Your task to perform on an android device: Go to location settings Image 0: 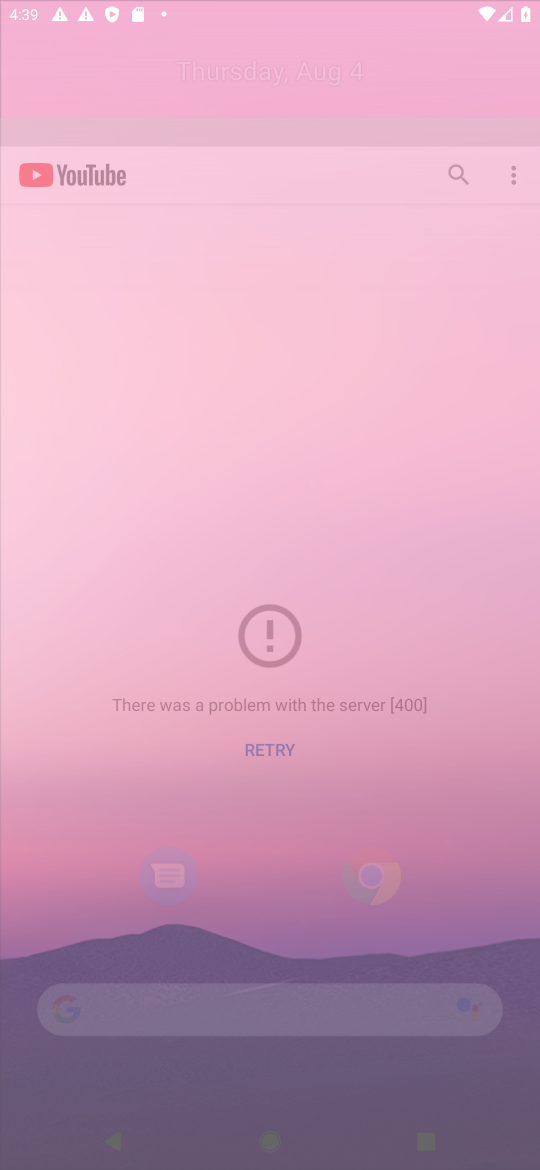
Step 0: press home button
Your task to perform on an android device: Go to location settings Image 1: 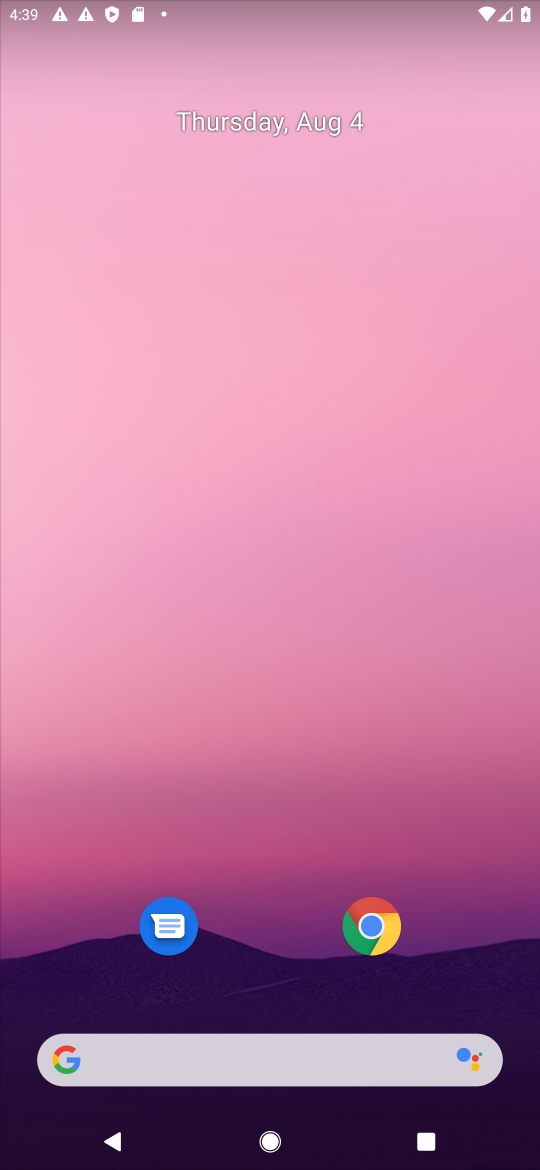
Step 1: drag from (281, 1022) to (413, 253)
Your task to perform on an android device: Go to location settings Image 2: 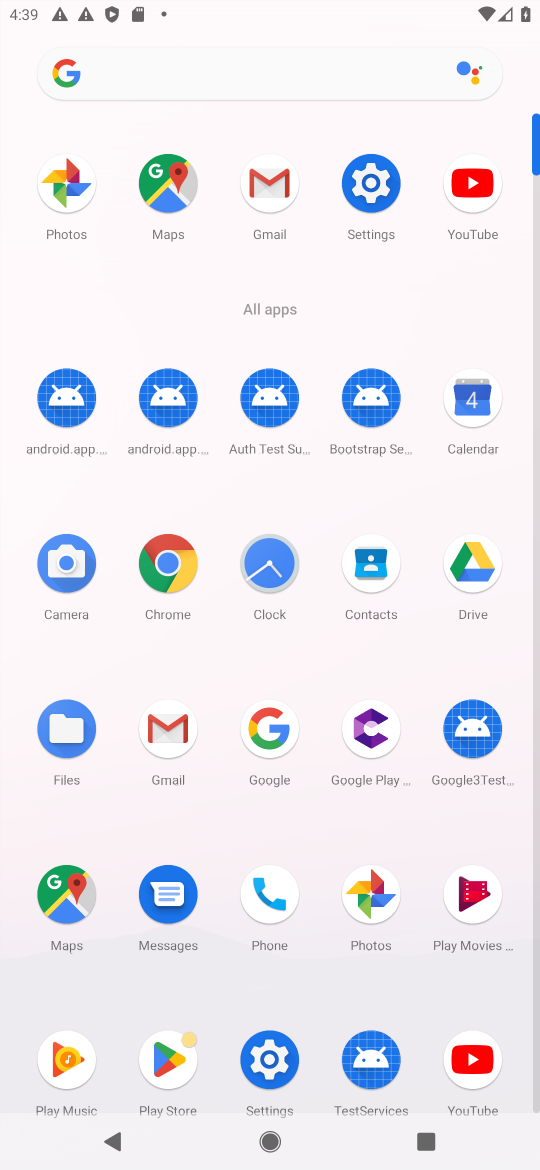
Step 2: click (375, 196)
Your task to perform on an android device: Go to location settings Image 3: 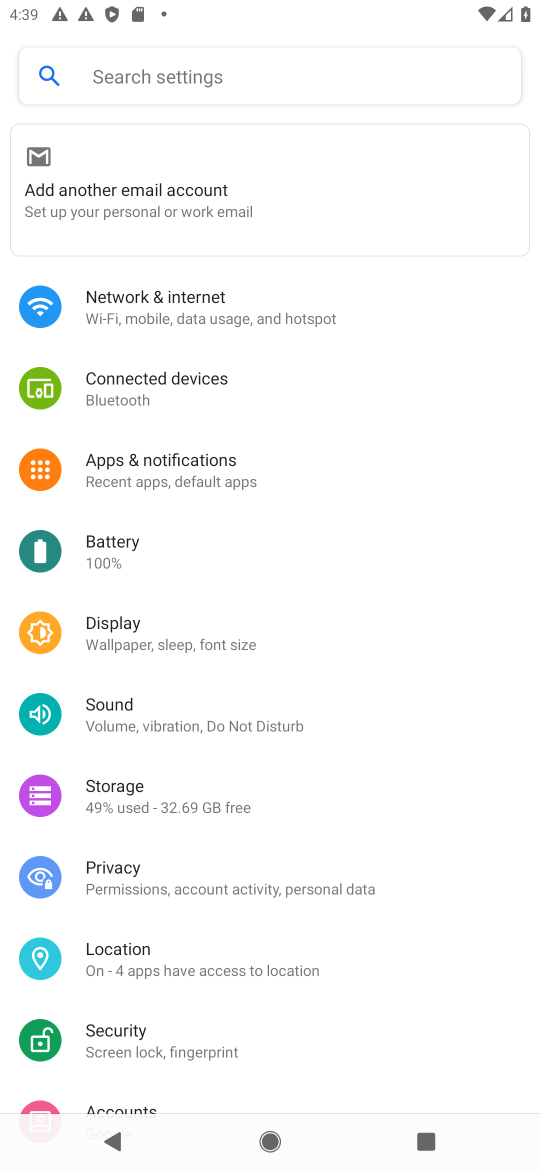
Step 3: click (126, 969)
Your task to perform on an android device: Go to location settings Image 4: 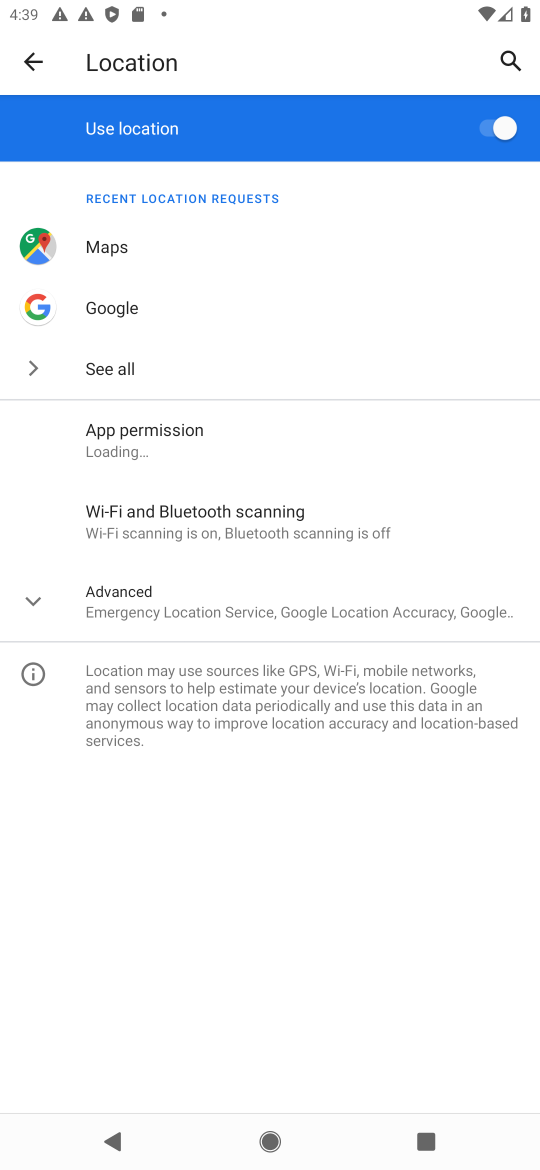
Step 4: task complete